Your task to perform on an android device: Is it going to rain tomorrow? Image 0: 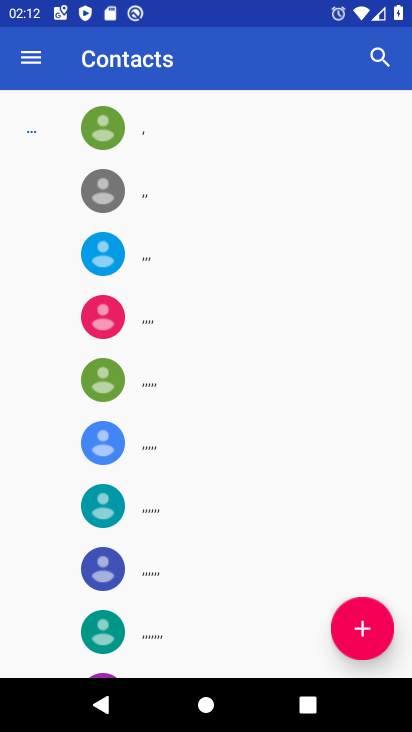
Step 0: press home button
Your task to perform on an android device: Is it going to rain tomorrow? Image 1: 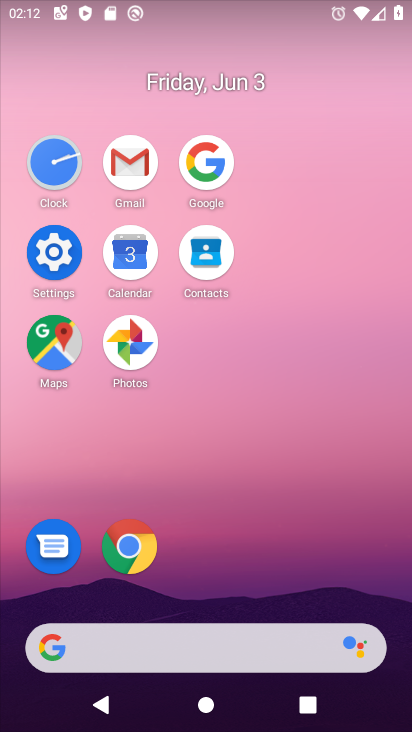
Step 1: click (194, 162)
Your task to perform on an android device: Is it going to rain tomorrow? Image 2: 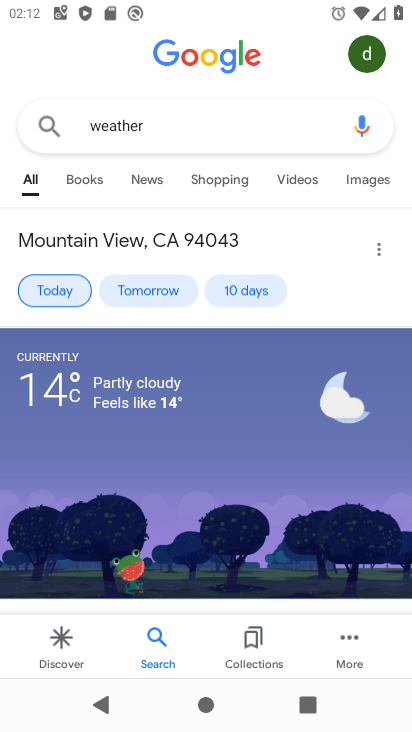
Step 2: click (160, 281)
Your task to perform on an android device: Is it going to rain tomorrow? Image 3: 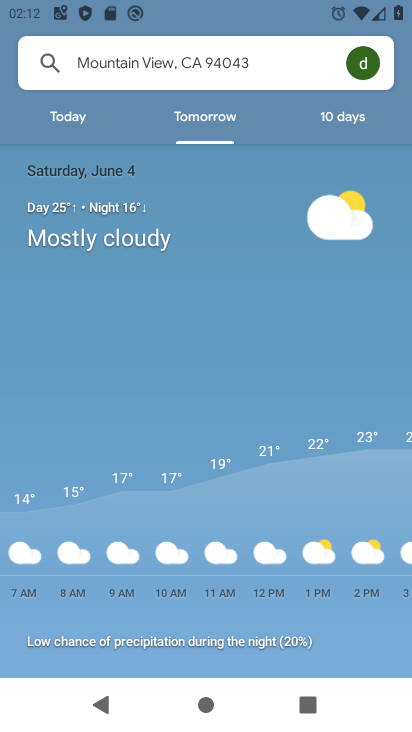
Step 3: task complete